Your task to perform on an android device: Go to eBay Image 0: 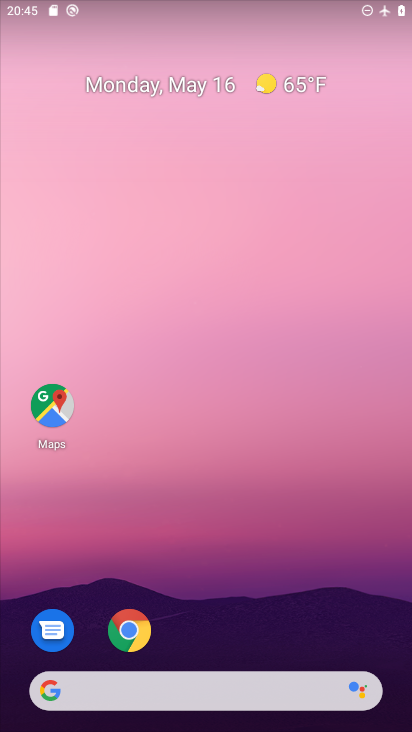
Step 0: click (128, 631)
Your task to perform on an android device: Go to eBay Image 1: 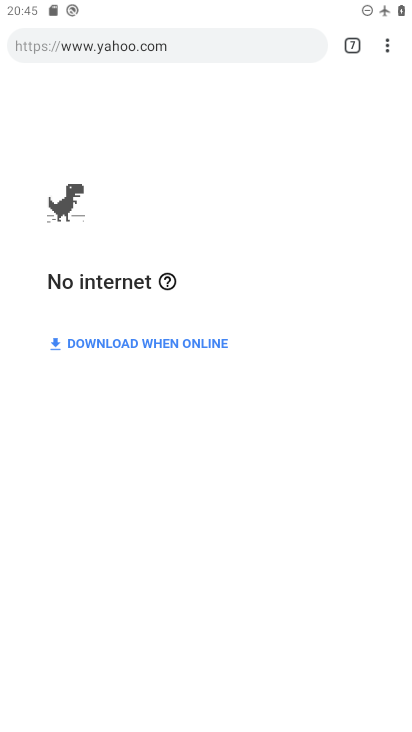
Step 1: click (352, 39)
Your task to perform on an android device: Go to eBay Image 2: 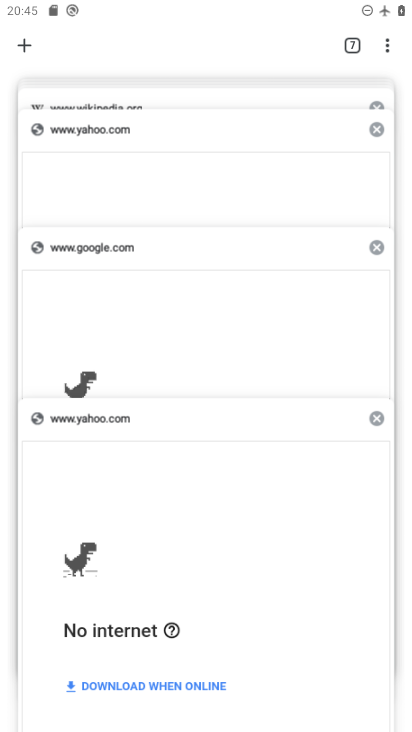
Step 2: click (26, 46)
Your task to perform on an android device: Go to eBay Image 3: 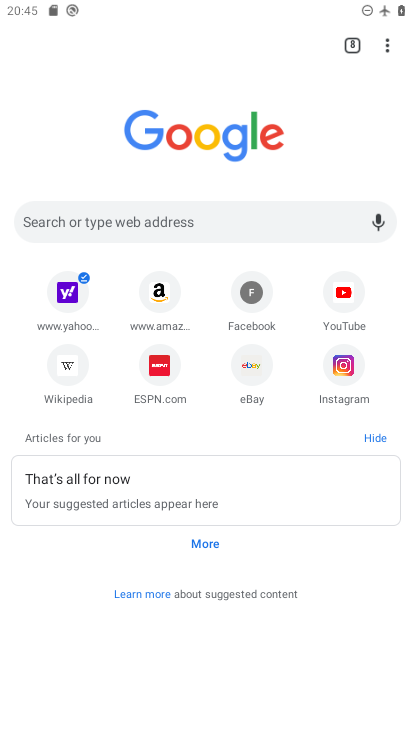
Step 3: click (259, 378)
Your task to perform on an android device: Go to eBay Image 4: 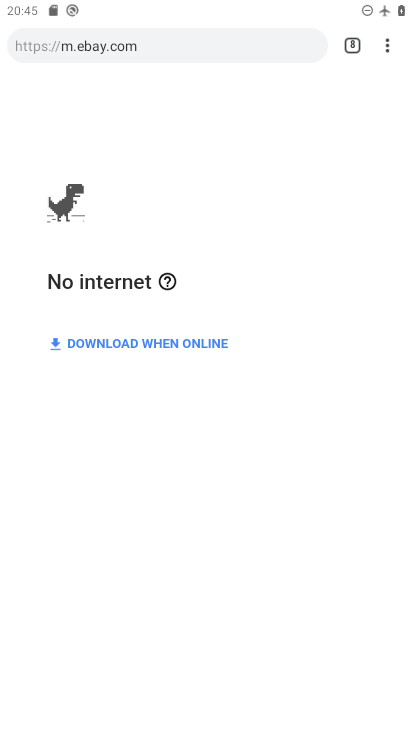
Step 4: task complete